Your task to perform on an android device: Google the capital of Colombia Image 0: 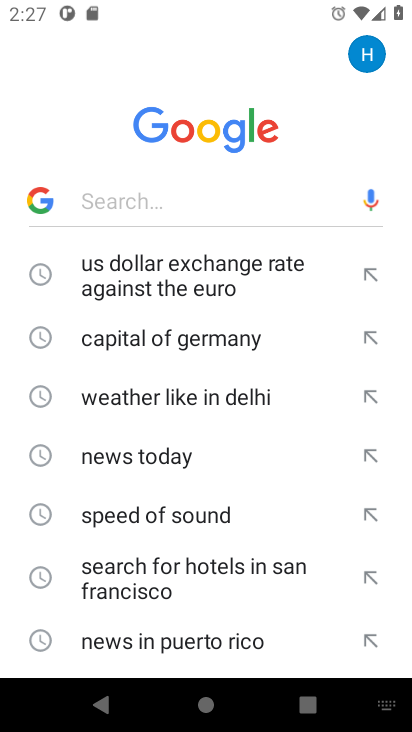
Step 0: press home button
Your task to perform on an android device: Google the capital of Colombia Image 1: 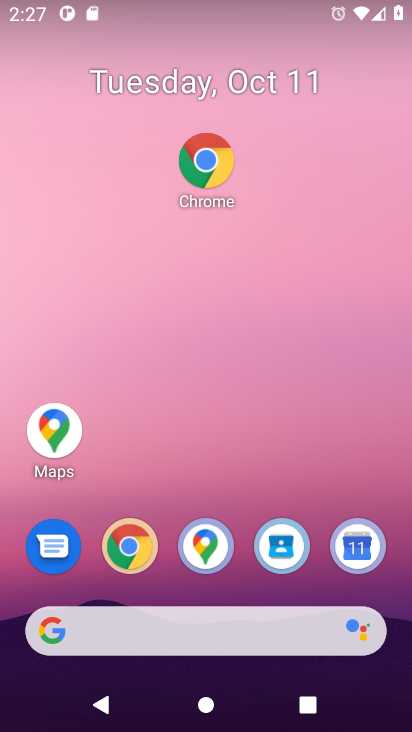
Step 1: click (132, 550)
Your task to perform on an android device: Google the capital of Colombia Image 2: 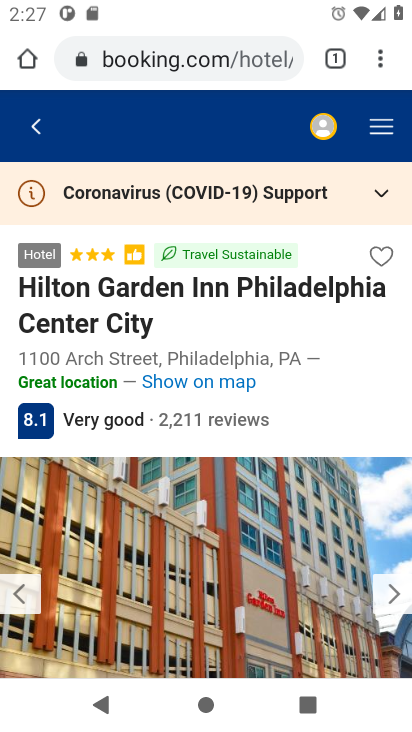
Step 2: click (215, 66)
Your task to perform on an android device: Google the capital of Colombia Image 3: 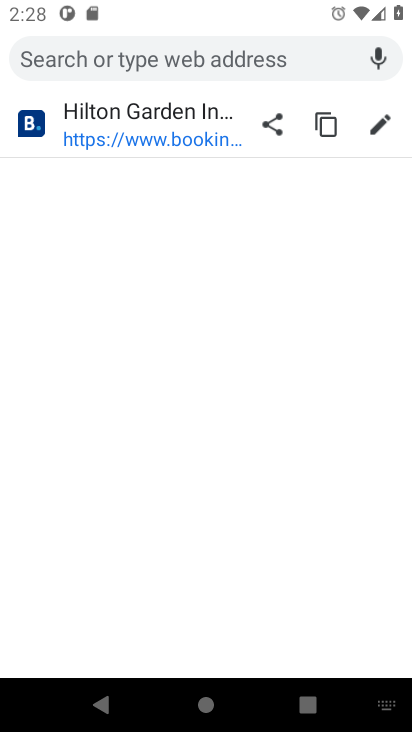
Step 3: type "capital of Colombia"
Your task to perform on an android device: Google the capital of Colombia Image 4: 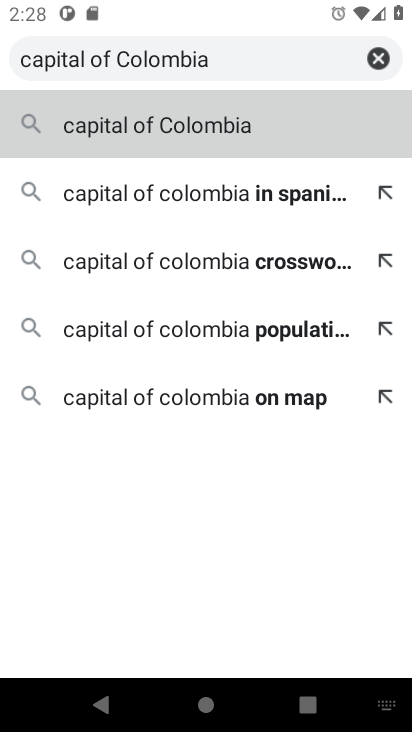
Step 4: type ""
Your task to perform on an android device: Google the capital of Colombia Image 5: 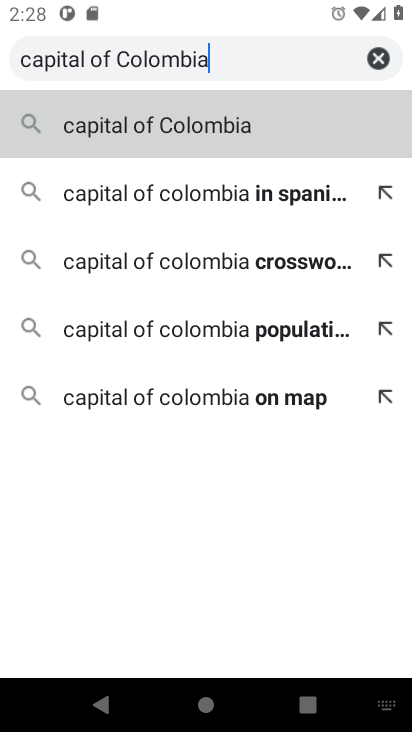
Step 5: press enter
Your task to perform on an android device: Google the capital of Colombia Image 6: 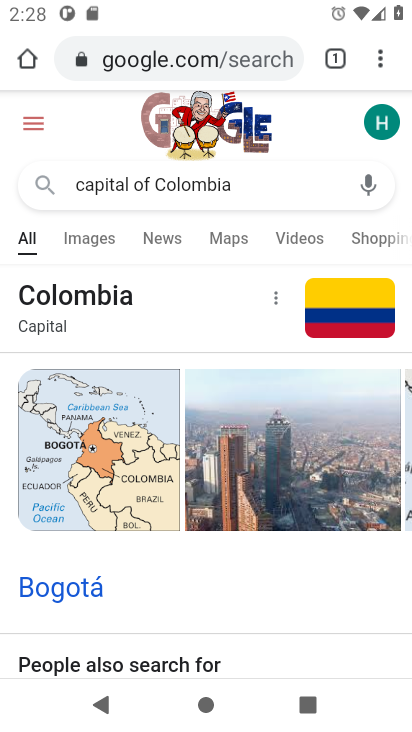
Step 6: task complete